Your task to perform on an android device: Open the stopwatch Image 0: 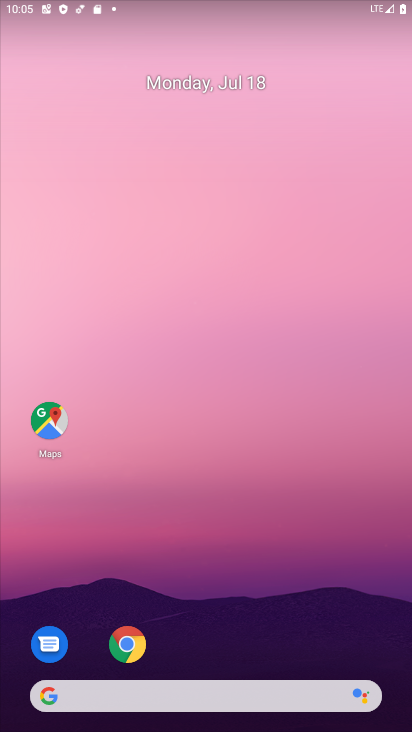
Step 0: drag from (352, 628) to (370, 82)
Your task to perform on an android device: Open the stopwatch Image 1: 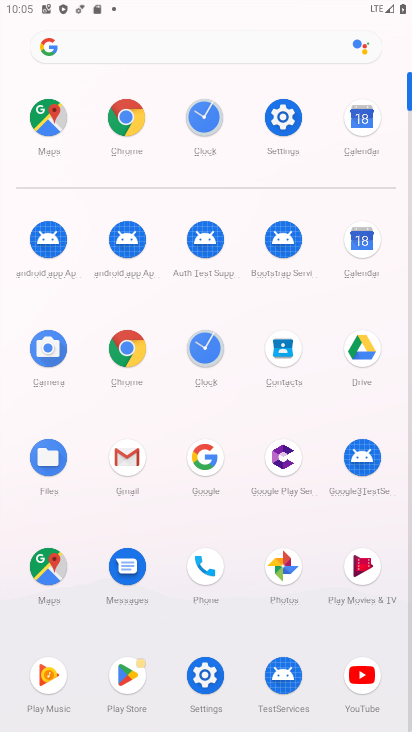
Step 1: click (204, 351)
Your task to perform on an android device: Open the stopwatch Image 2: 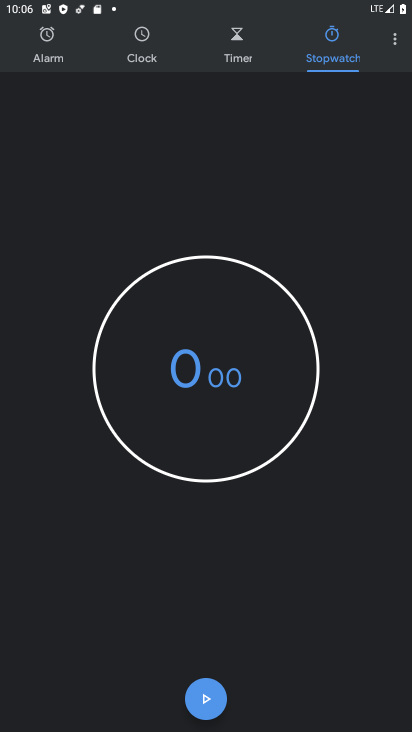
Step 2: task complete